Your task to perform on an android device: open app "Google Play Music" (install if not already installed) Image 0: 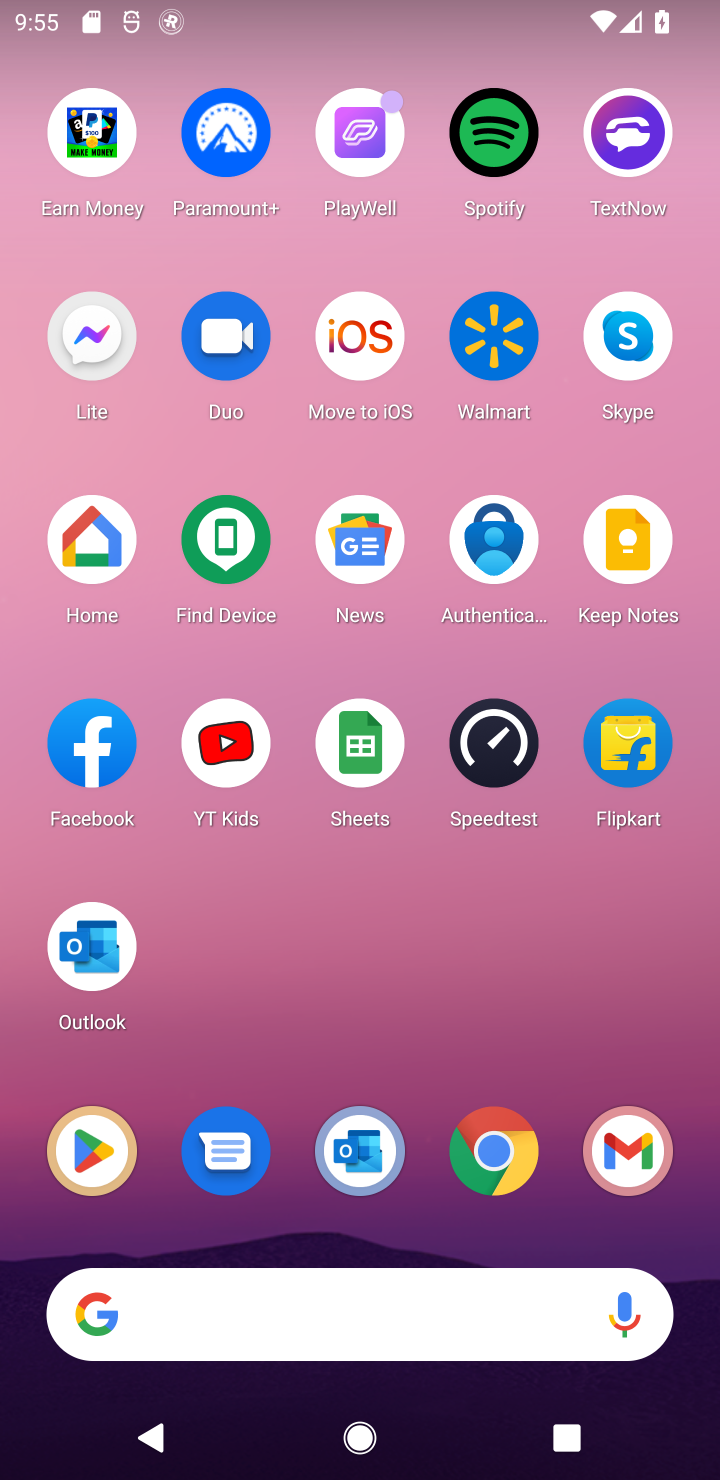
Step 0: press back button
Your task to perform on an android device: open app "Google Play Music" (install if not already installed) Image 1: 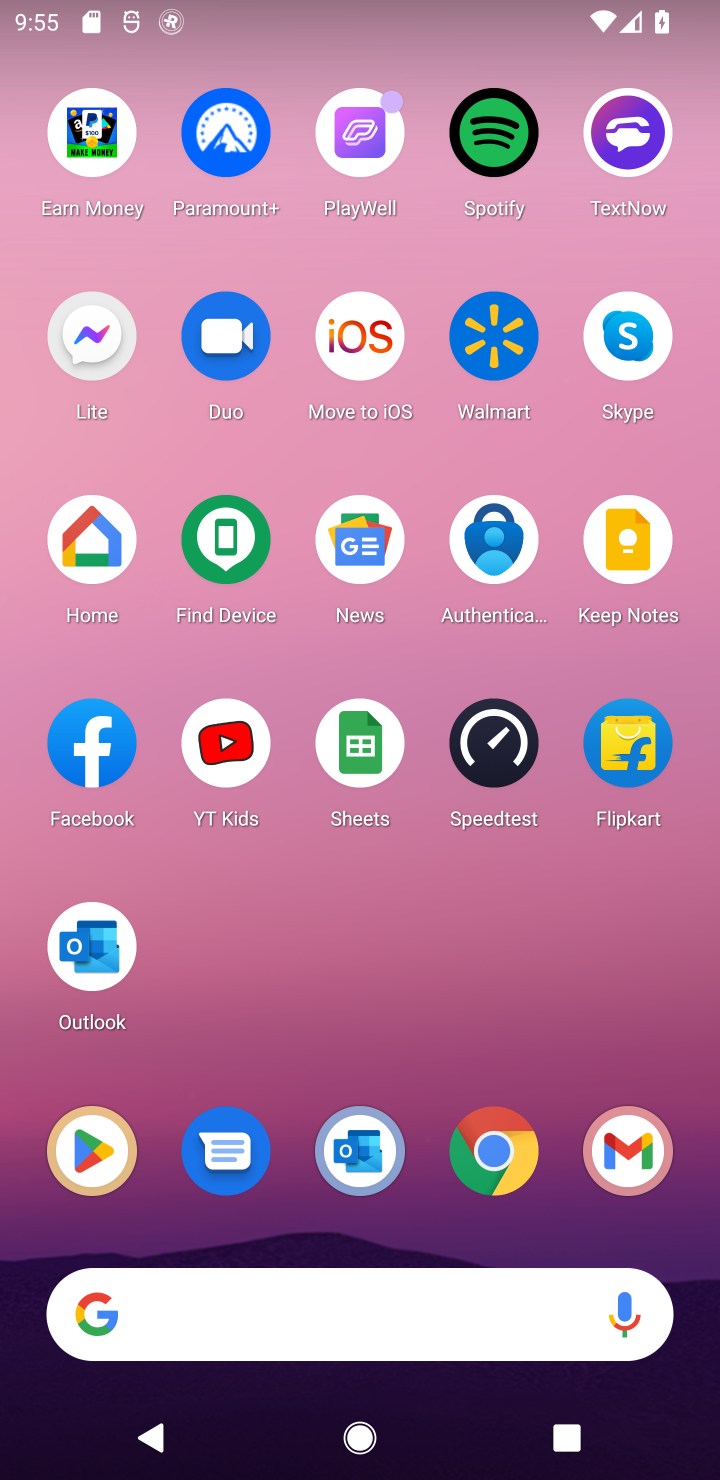
Step 1: click (93, 1168)
Your task to perform on an android device: open app "Google Play Music" (install if not already installed) Image 2: 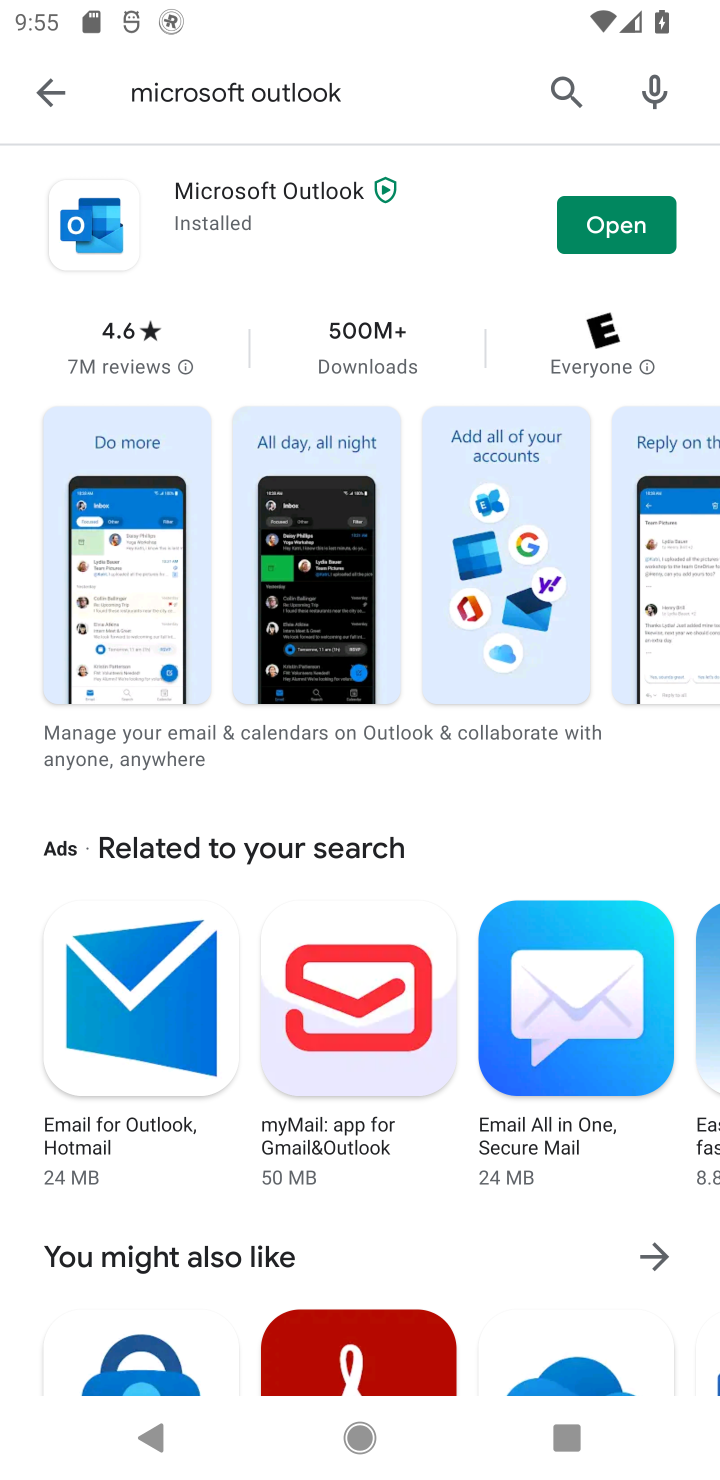
Step 2: click (635, 113)
Your task to perform on an android device: open app "Google Play Music" (install if not already installed) Image 3: 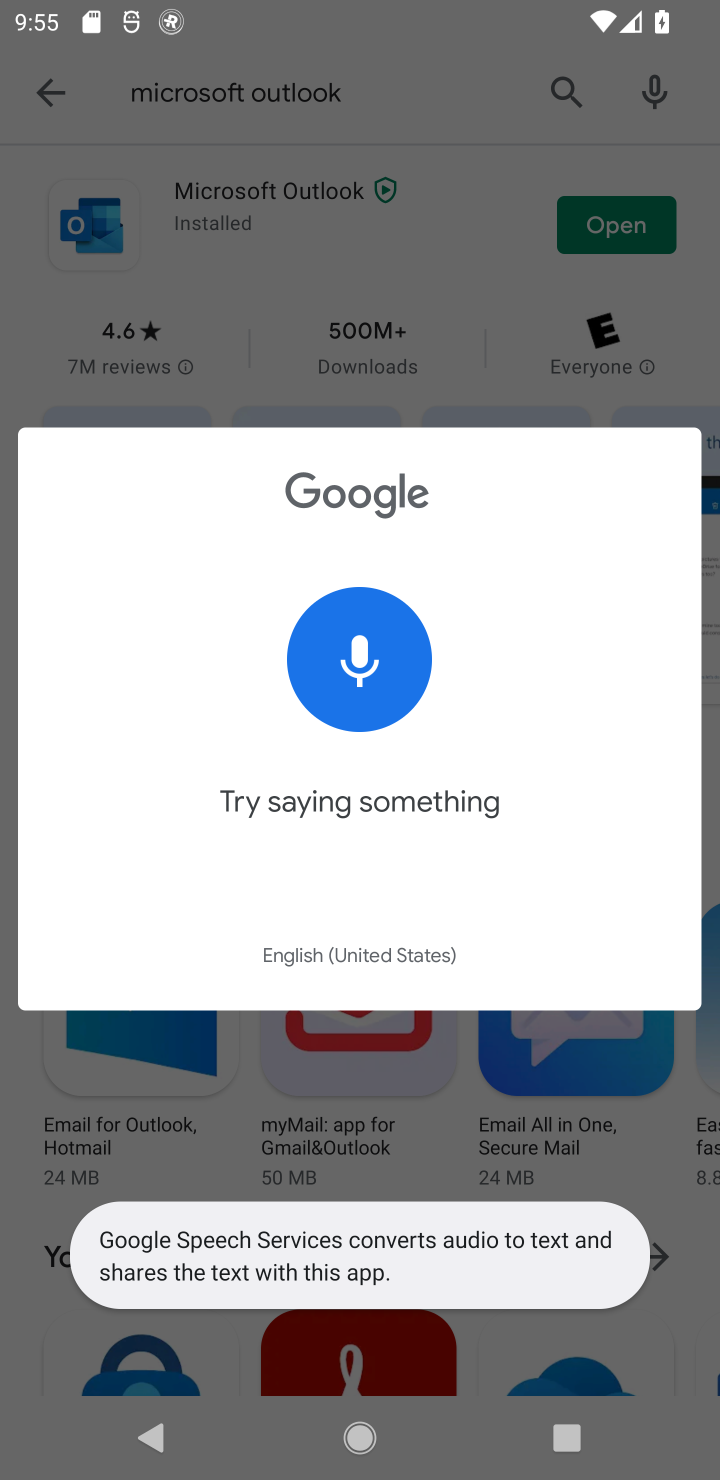
Step 3: click (553, 116)
Your task to perform on an android device: open app "Google Play Music" (install if not already installed) Image 4: 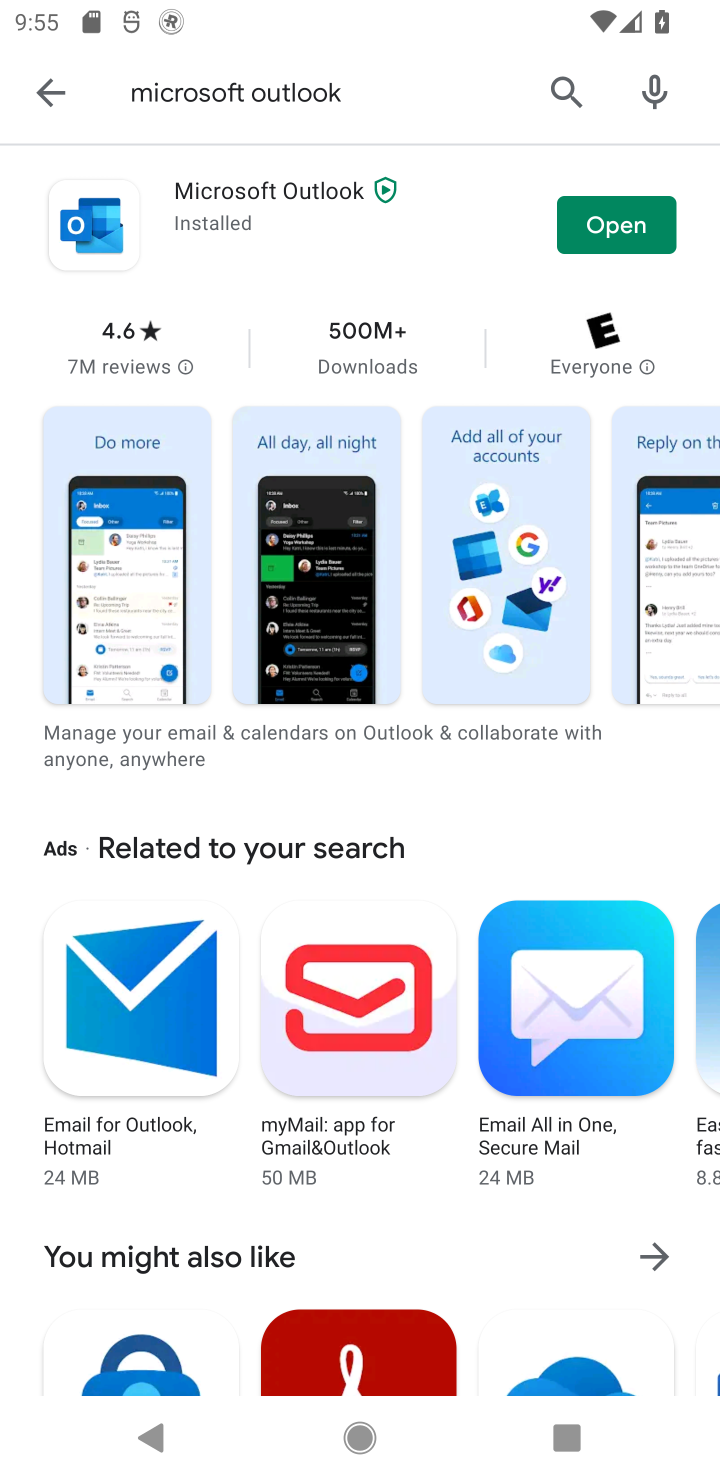
Step 4: click (571, 94)
Your task to perform on an android device: open app "Google Play Music" (install if not already installed) Image 5: 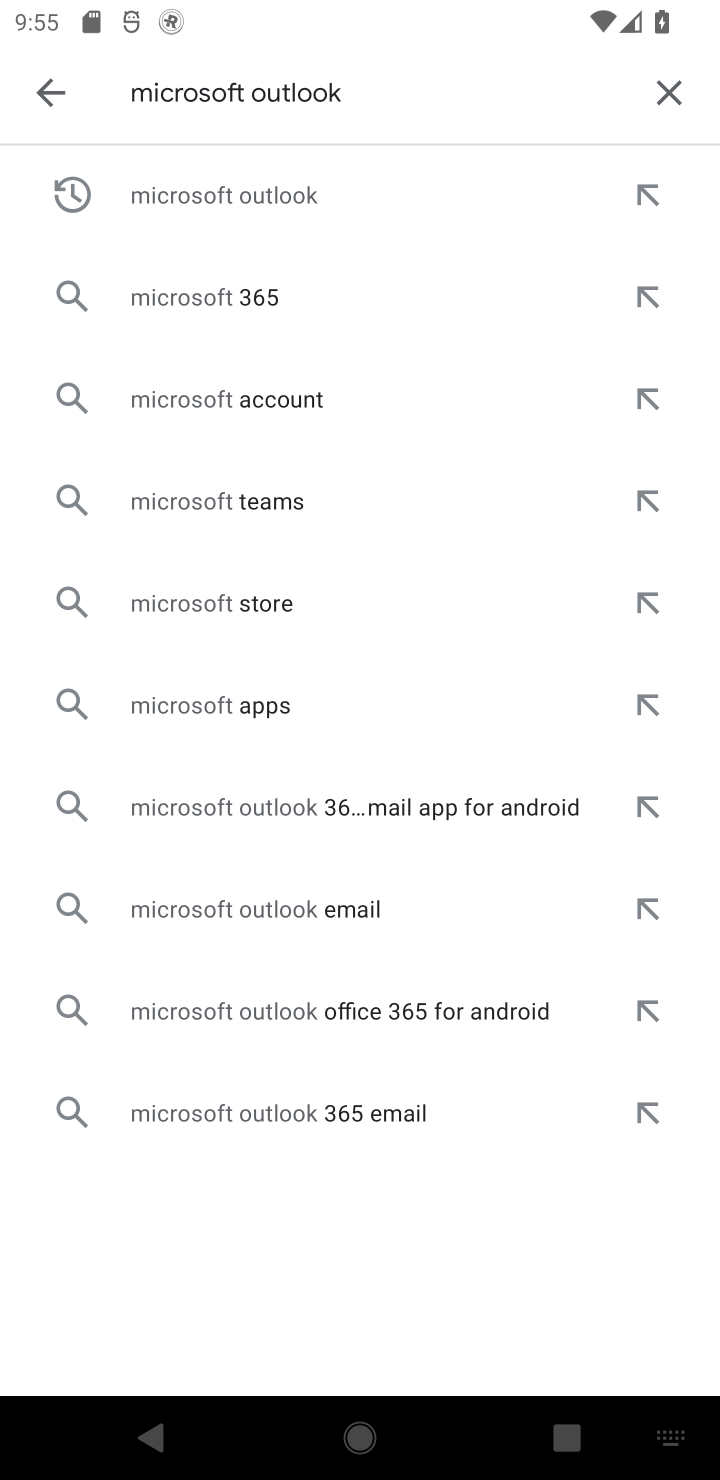
Step 5: click (673, 91)
Your task to perform on an android device: open app "Google Play Music" (install if not already installed) Image 6: 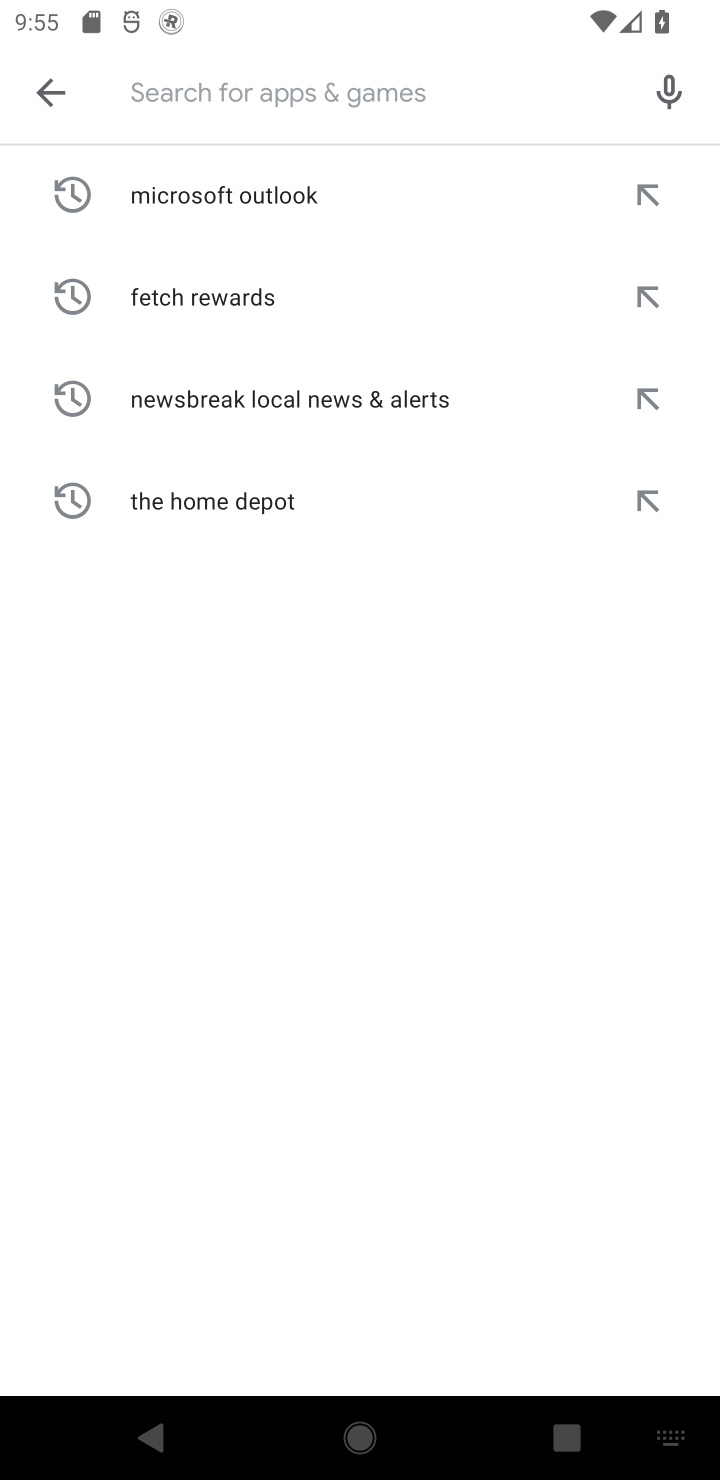
Step 6: type "Google Play Music"
Your task to perform on an android device: open app "Google Play Music" (install if not already installed) Image 7: 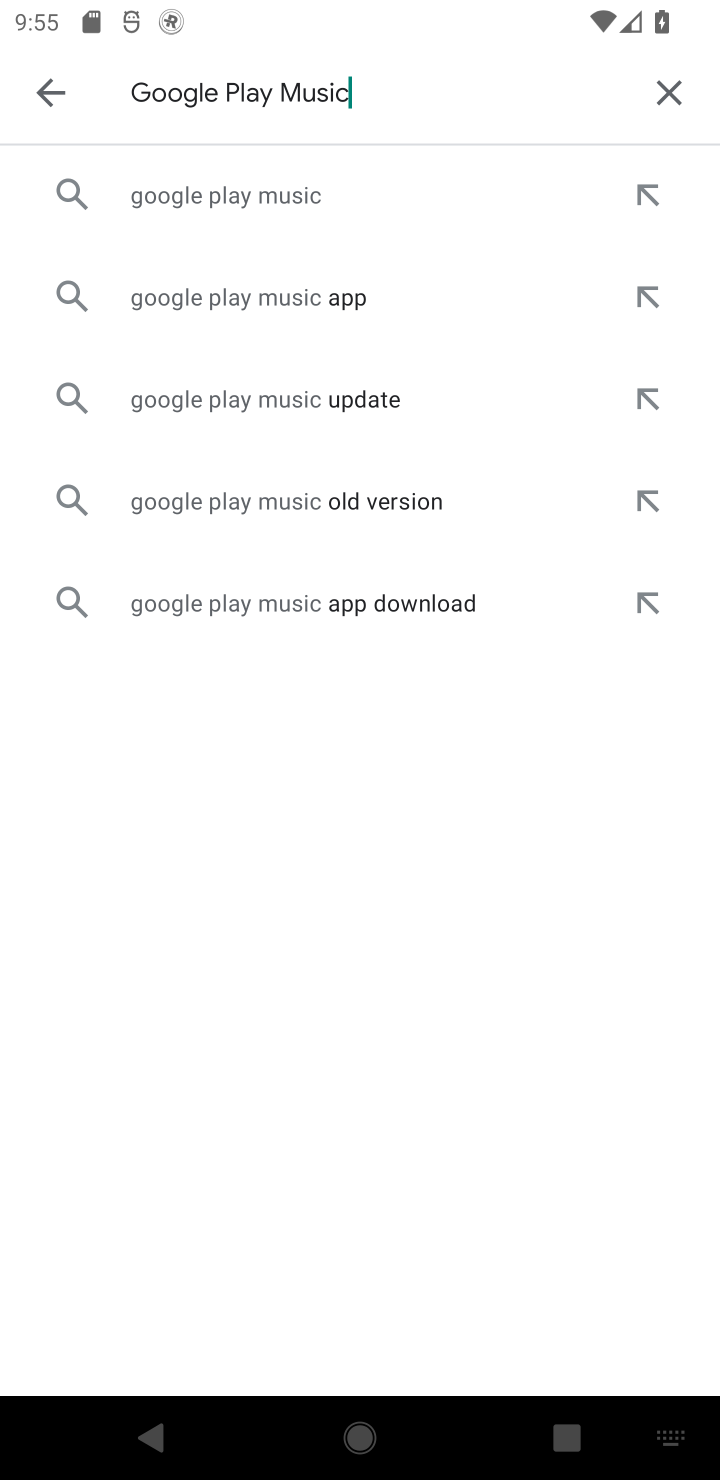
Step 7: click (272, 199)
Your task to perform on an android device: open app "Google Play Music" (install if not already installed) Image 8: 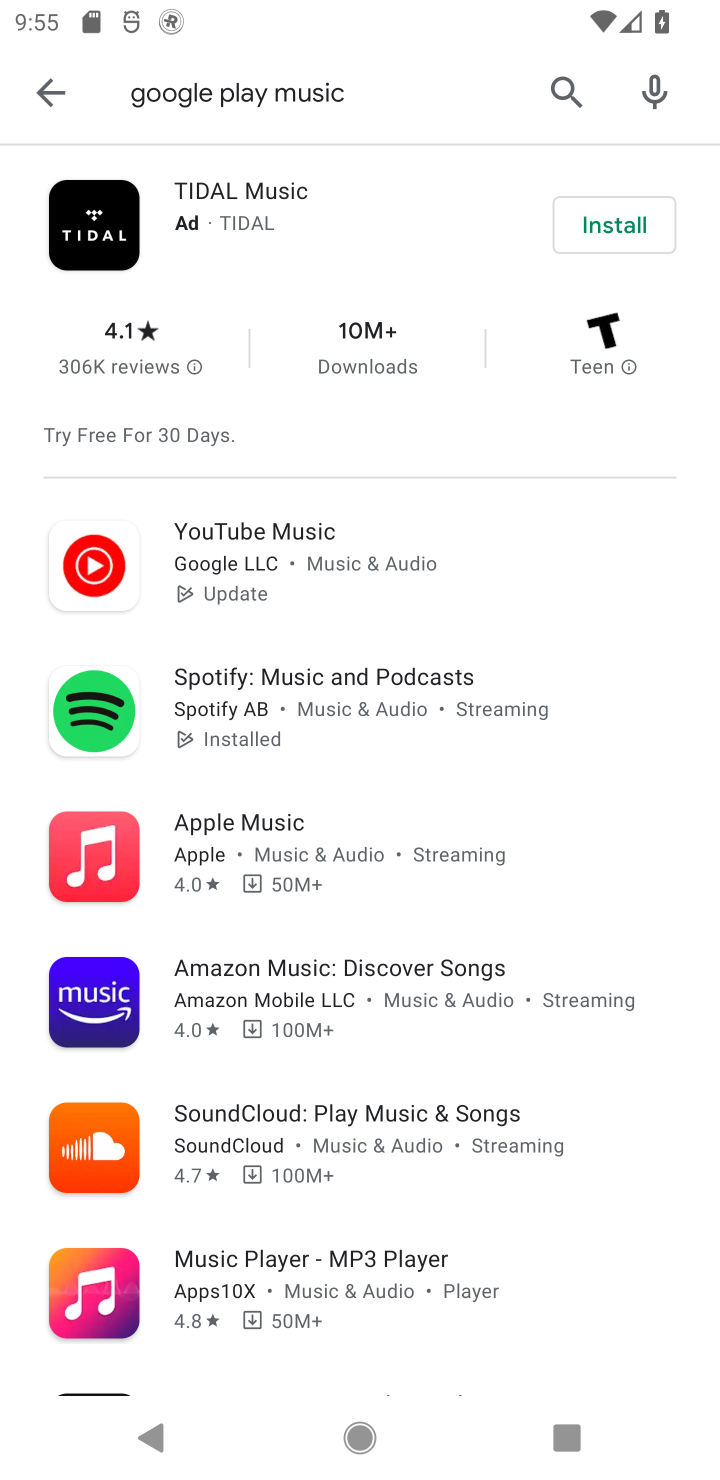
Step 8: task complete